Your task to perform on an android device: see creations saved in the google photos Image 0: 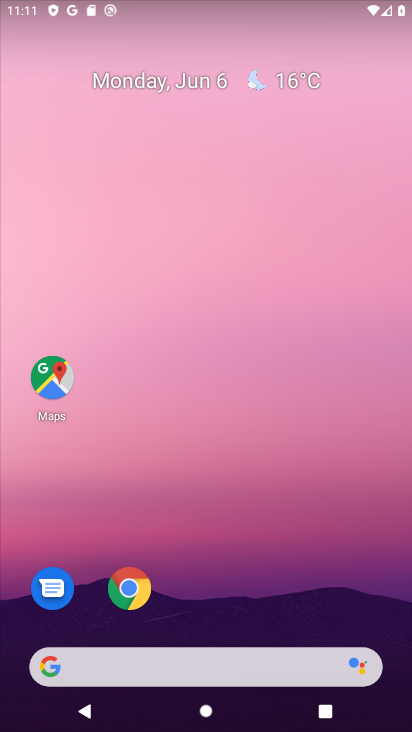
Step 0: drag from (230, 603) to (236, 425)
Your task to perform on an android device: see creations saved in the google photos Image 1: 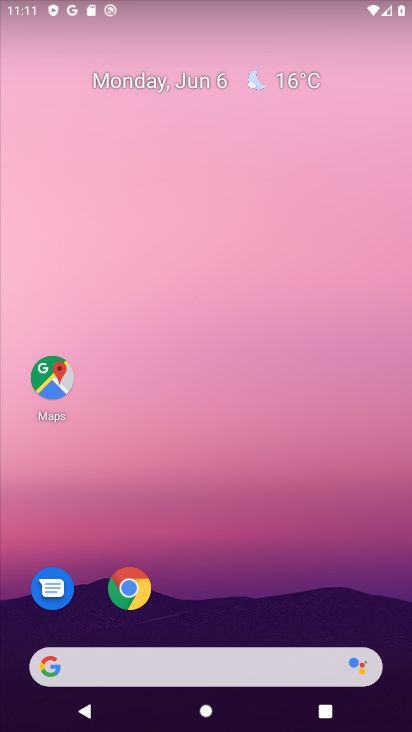
Step 1: drag from (277, 570) to (256, 10)
Your task to perform on an android device: see creations saved in the google photos Image 2: 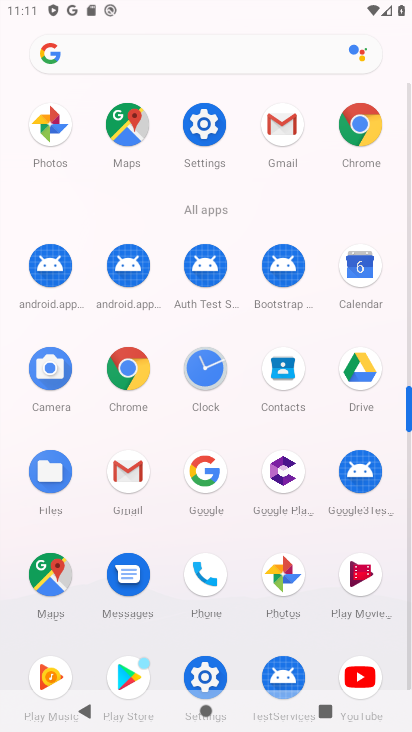
Step 2: click (277, 573)
Your task to perform on an android device: see creations saved in the google photos Image 3: 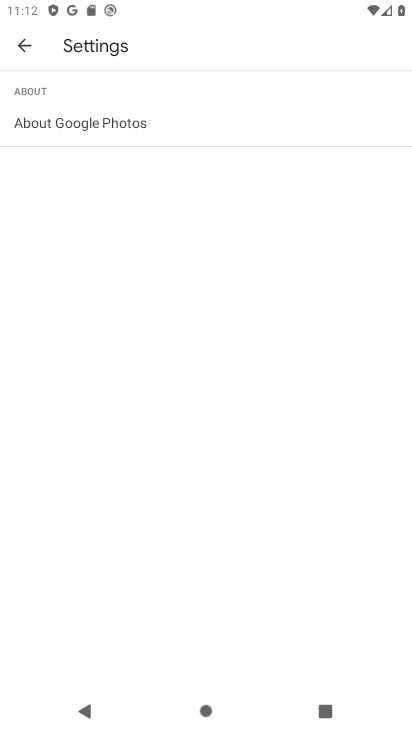
Step 3: click (27, 39)
Your task to perform on an android device: see creations saved in the google photos Image 4: 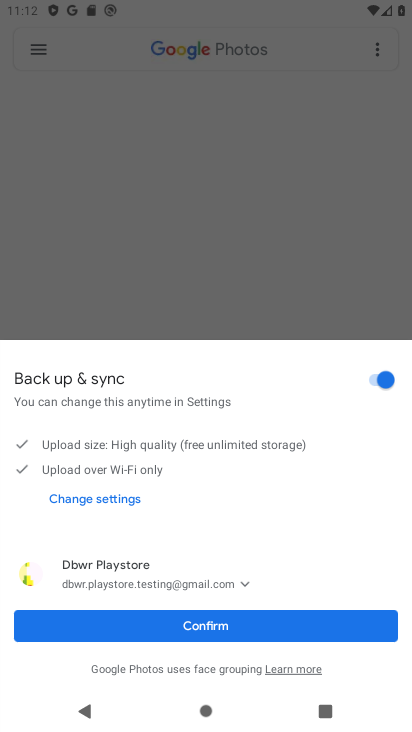
Step 4: click (238, 623)
Your task to perform on an android device: see creations saved in the google photos Image 5: 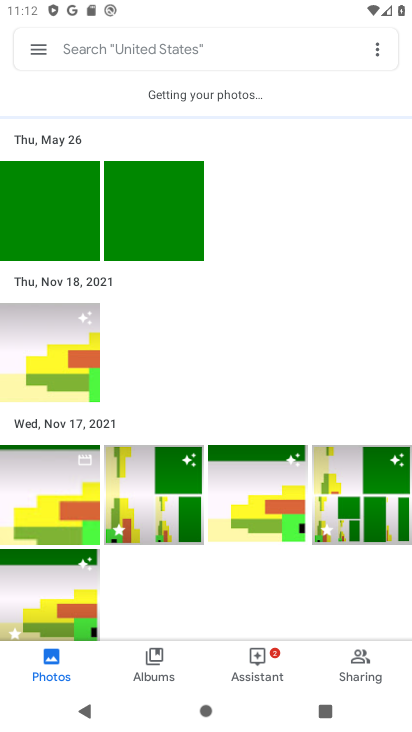
Step 5: click (36, 45)
Your task to perform on an android device: see creations saved in the google photos Image 6: 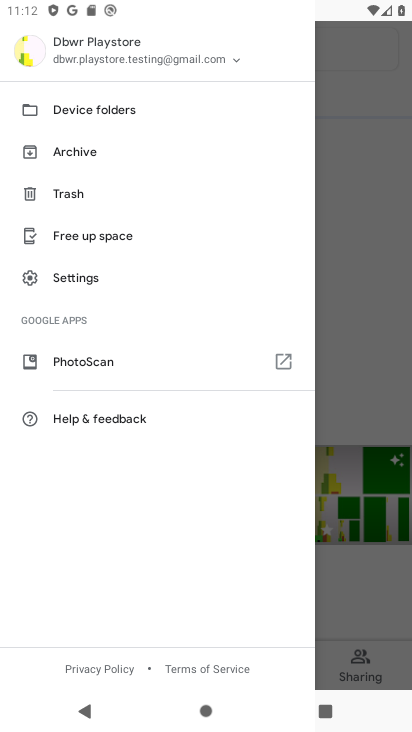
Step 6: click (83, 274)
Your task to perform on an android device: see creations saved in the google photos Image 7: 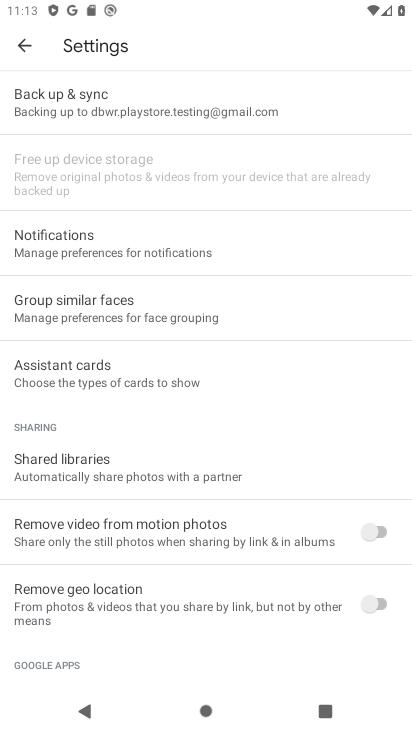
Step 7: click (24, 35)
Your task to perform on an android device: see creations saved in the google photos Image 8: 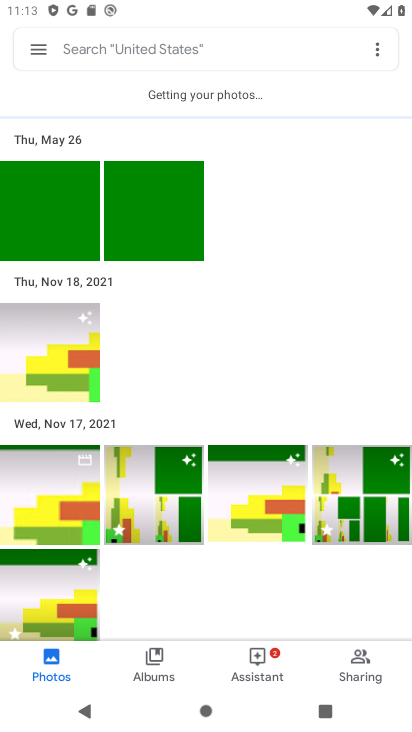
Step 8: task complete